Your task to perform on an android device: Open battery settings Image 0: 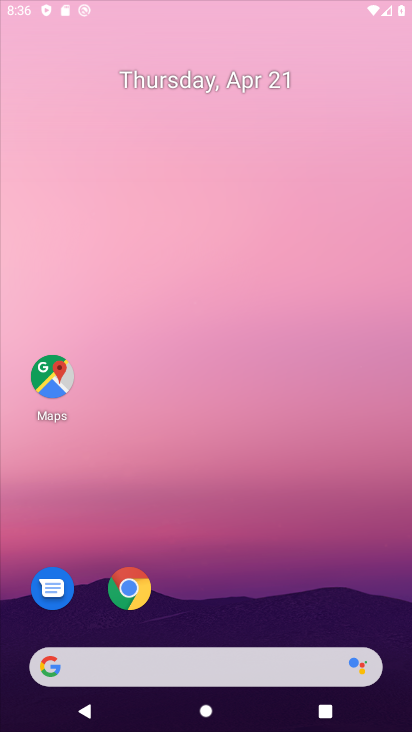
Step 0: drag from (266, 274) to (237, 34)
Your task to perform on an android device: Open battery settings Image 1: 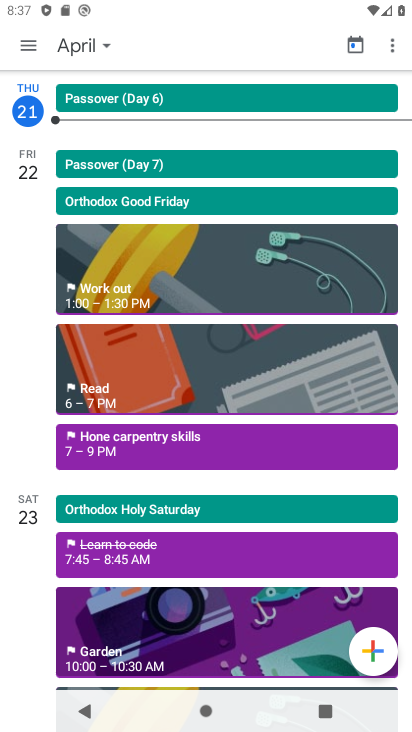
Step 1: press back button
Your task to perform on an android device: Open battery settings Image 2: 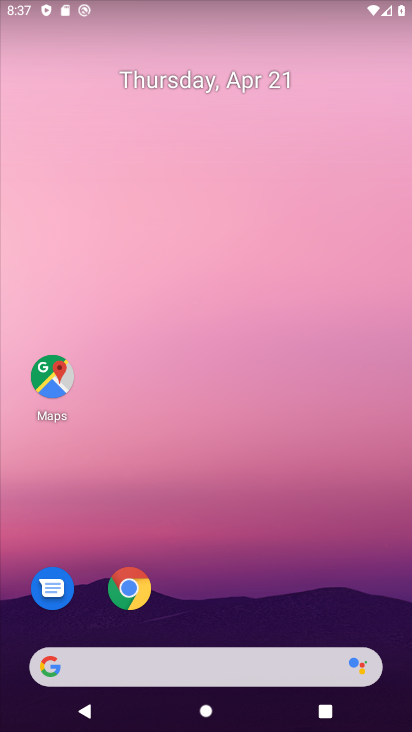
Step 2: drag from (251, 524) to (167, 8)
Your task to perform on an android device: Open battery settings Image 3: 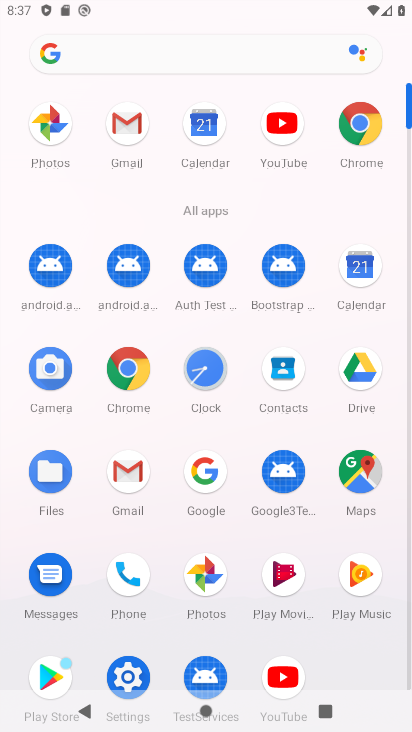
Step 3: drag from (18, 494) to (18, 409)
Your task to perform on an android device: Open battery settings Image 4: 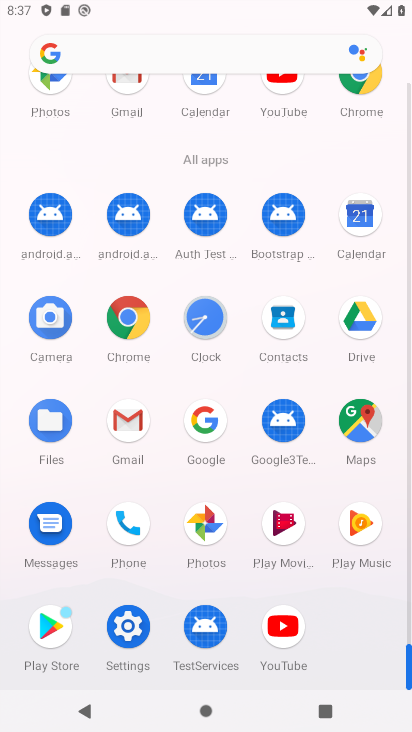
Step 4: click (121, 627)
Your task to perform on an android device: Open battery settings Image 5: 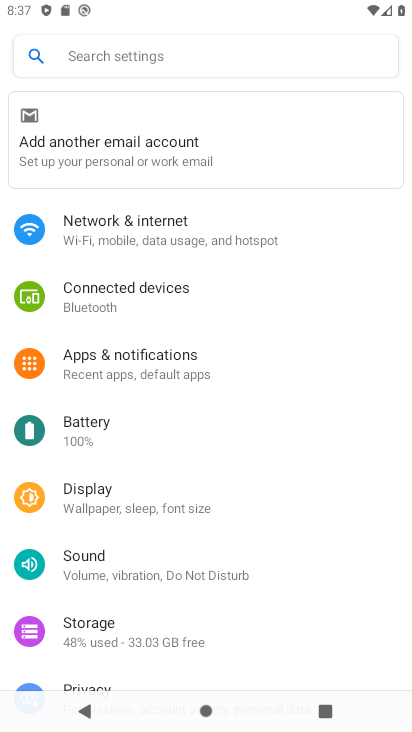
Step 5: click (115, 438)
Your task to perform on an android device: Open battery settings Image 6: 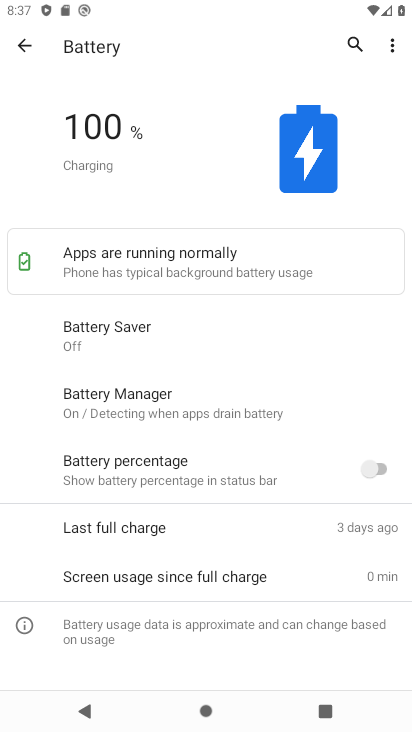
Step 6: task complete